Your task to perform on an android device: check storage Image 0: 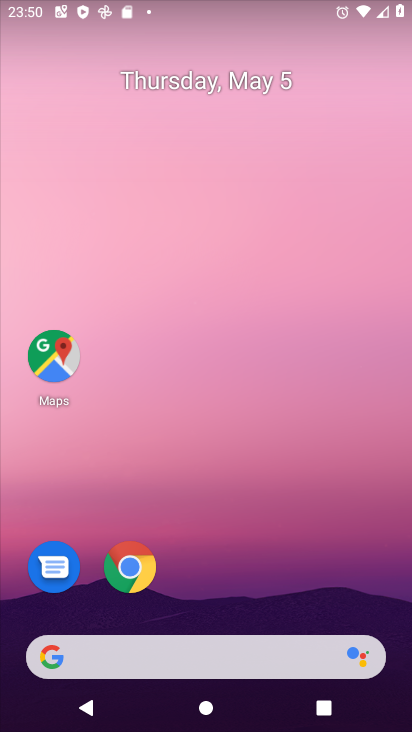
Step 0: drag from (186, 606) to (198, 78)
Your task to perform on an android device: check storage Image 1: 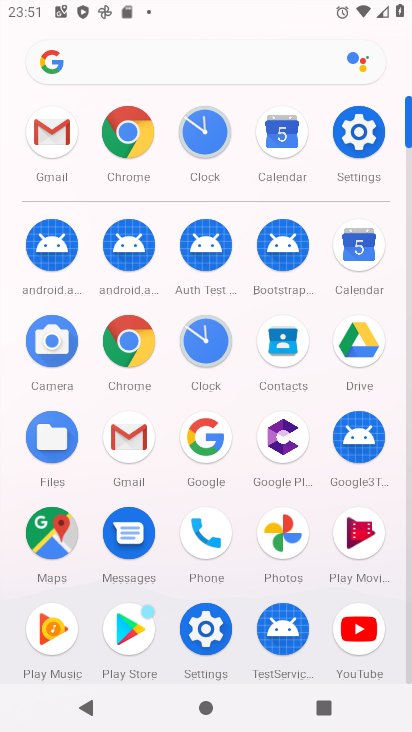
Step 1: click (342, 135)
Your task to perform on an android device: check storage Image 2: 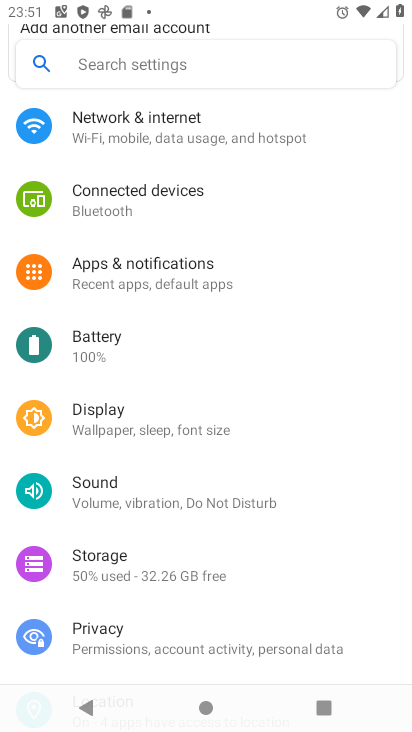
Step 2: click (172, 571)
Your task to perform on an android device: check storage Image 3: 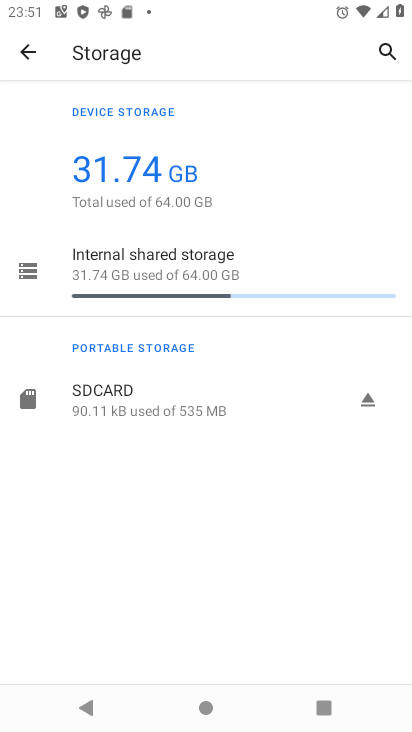
Step 3: click (287, 271)
Your task to perform on an android device: check storage Image 4: 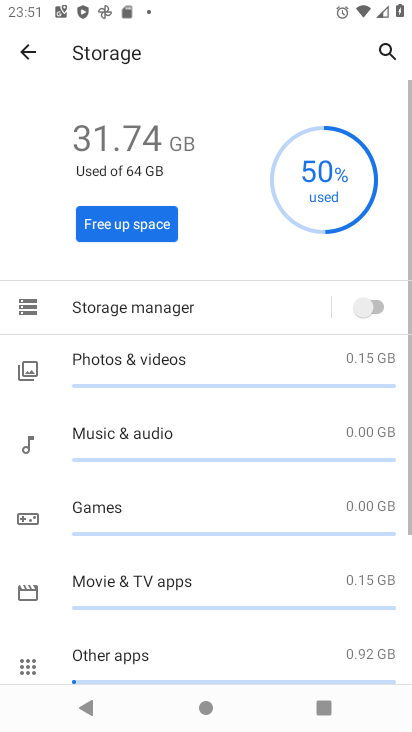
Step 4: task complete